Your task to perform on an android device: Find coffee shops on Maps Image 0: 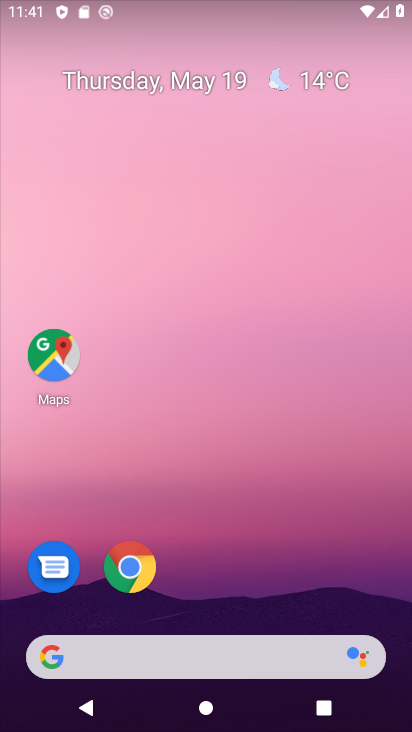
Step 0: drag from (339, 584) to (344, 110)
Your task to perform on an android device: Find coffee shops on Maps Image 1: 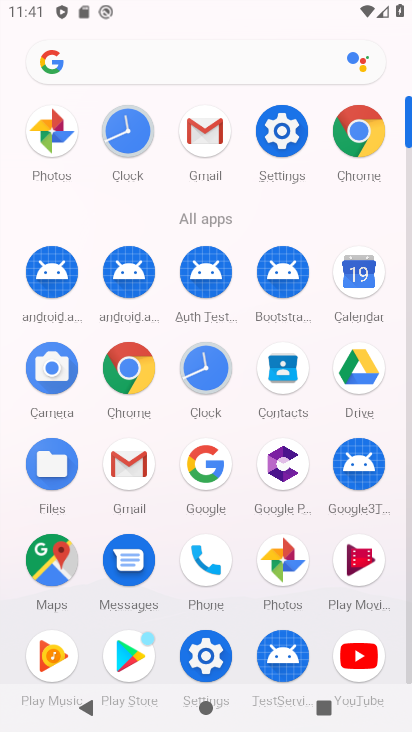
Step 1: click (22, 557)
Your task to perform on an android device: Find coffee shops on Maps Image 2: 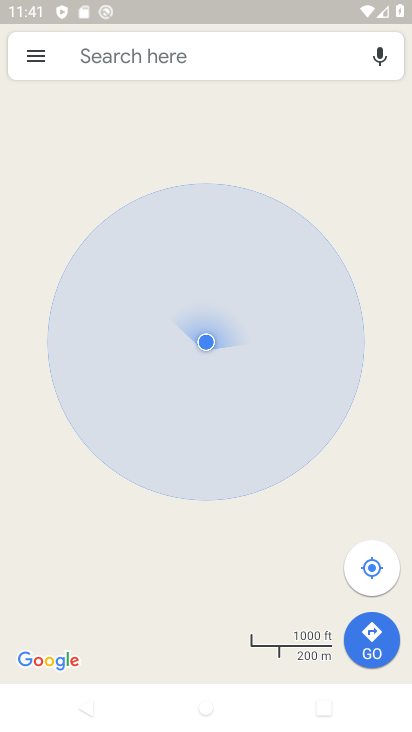
Step 2: type "coffef"
Your task to perform on an android device: Find coffee shops on Maps Image 3: 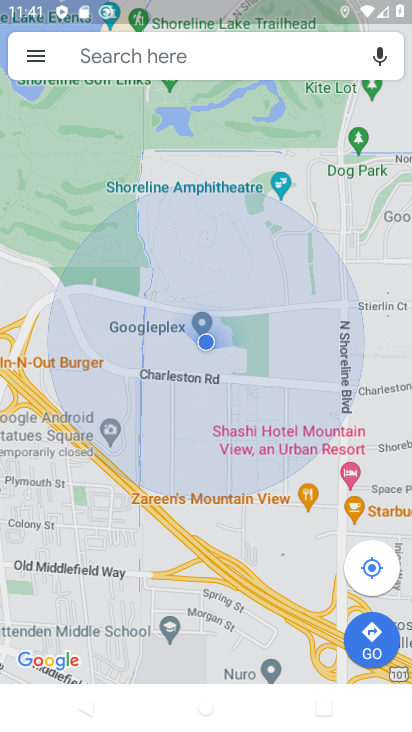
Step 3: click (291, 58)
Your task to perform on an android device: Find coffee shops on Maps Image 4: 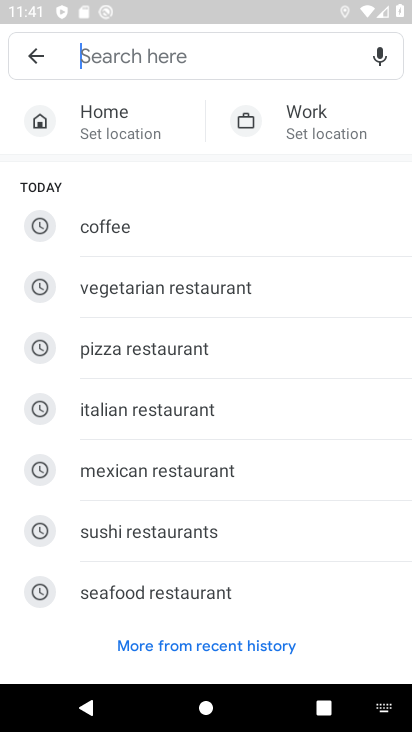
Step 4: type "coffe"
Your task to perform on an android device: Find coffee shops on Maps Image 5: 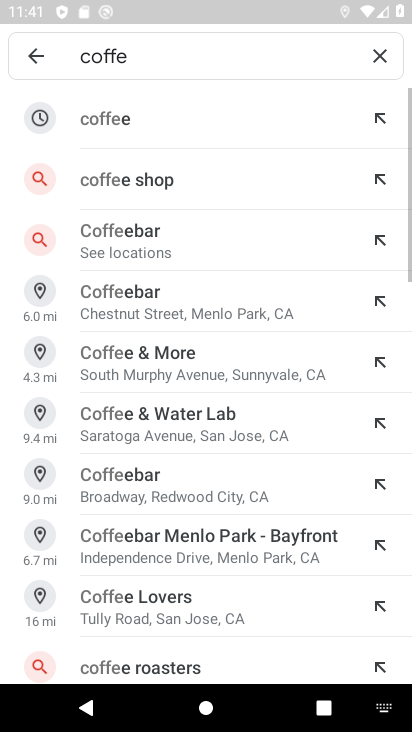
Step 5: click (194, 115)
Your task to perform on an android device: Find coffee shops on Maps Image 6: 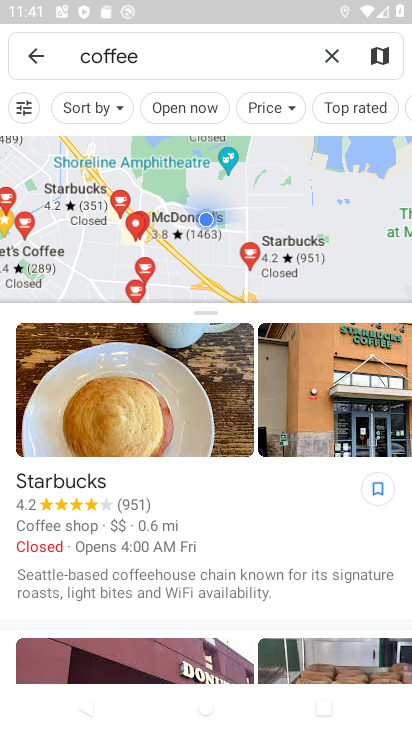
Step 6: task complete